Your task to perform on an android device: turn vacation reply on in the gmail app Image 0: 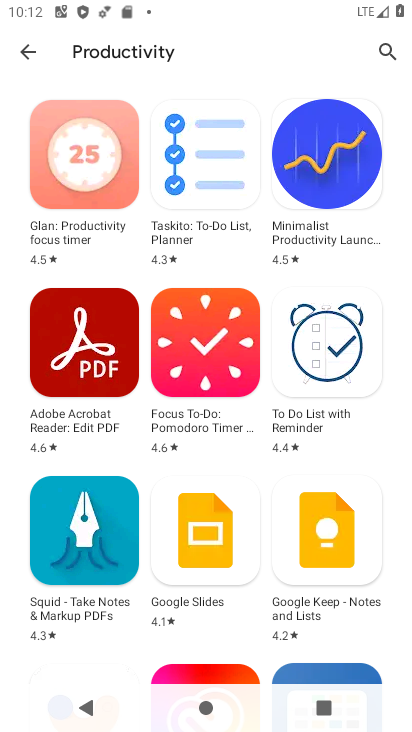
Step 0: press back button
Your task to perform on an android device: turn vacation reply on in the gmail app Image 1: 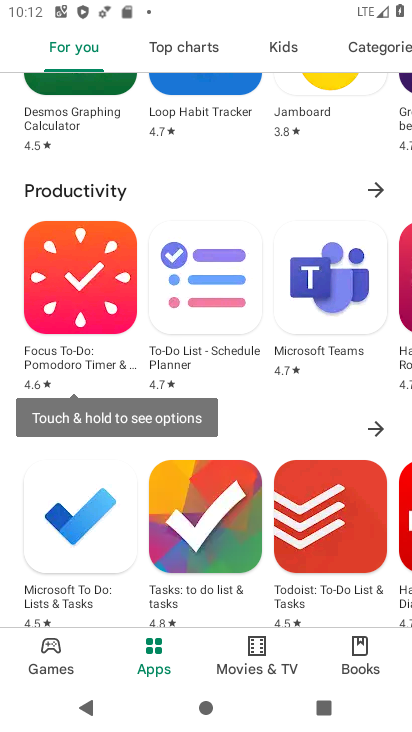
Step 1: press back button
Your task to perform on an android device: turn vacation reply on in the gmail app Image 2: 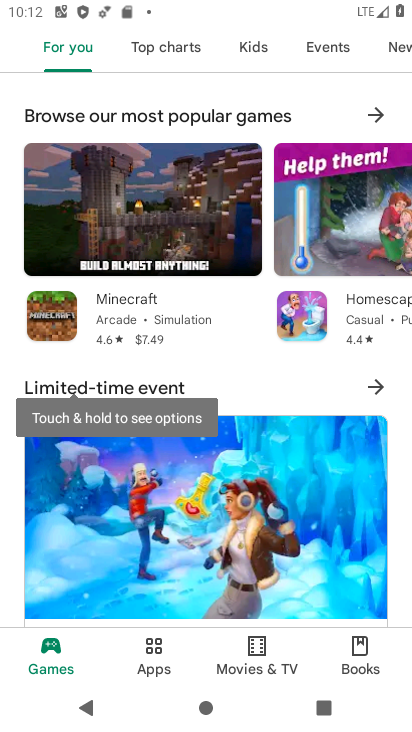
Step 2: press back button
Your task to perform on an android device: turn vacation reply on in the gmail app Image 3: 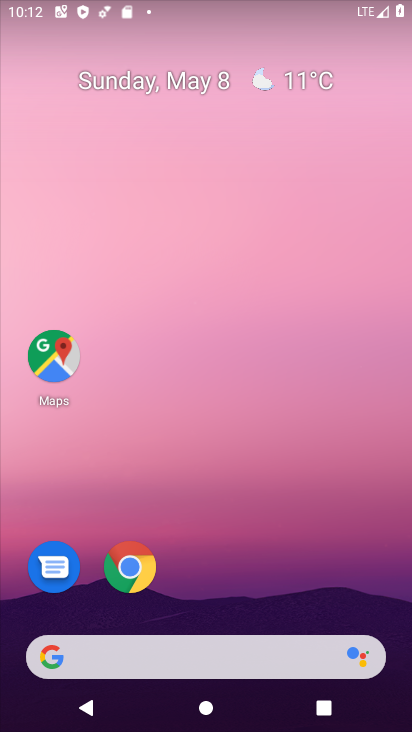
Step 3: drag from (237, 584) to (344, 63)
Your task to perform on an android device: turn vacation reply on in the gmail app Image 4: 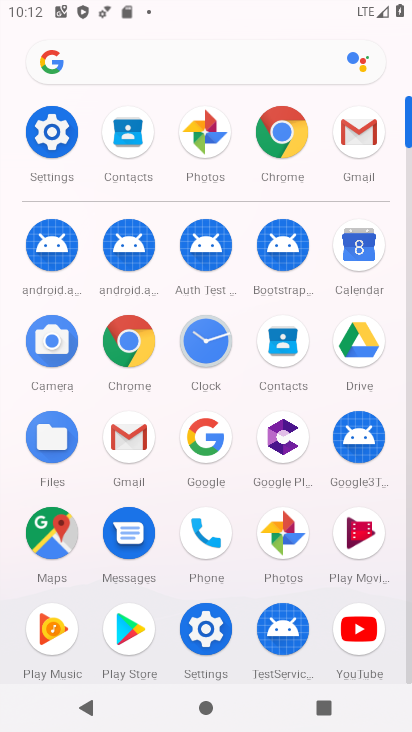
Step 4: click (356, 127)
Your task to perform on an android device: turn vacation reply on in the gmail app Image 5: 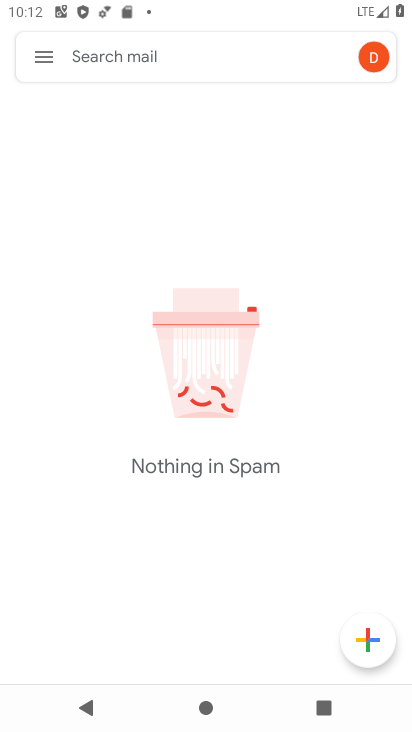
Step 5: click (48, 52)
Your task to perform on an android device: turn vacation reply on in the gmail app Image 6: 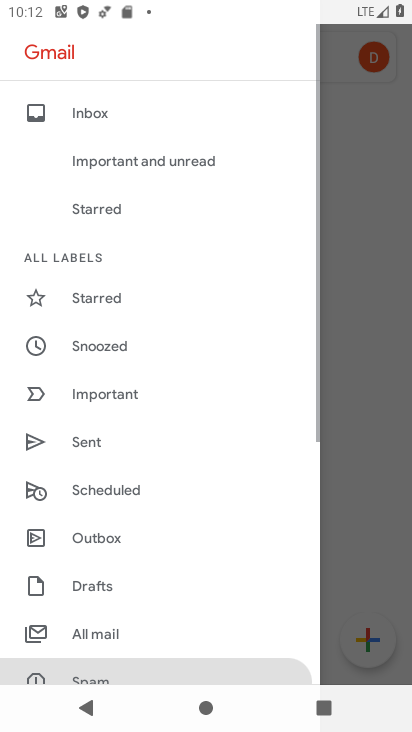
Step 6: drag from (169, 602) to (279, 72)
Your task to perform on an android device: turn vacation reply on in the gmail app Image 7: 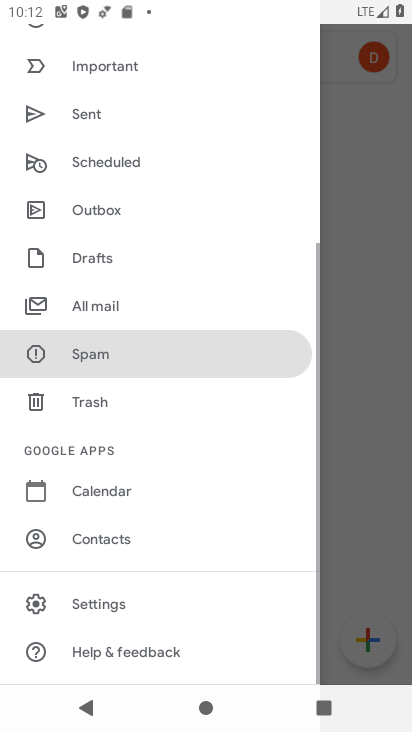
Step 7: click (128, 601)
Your task to perform on an android device: turn vacation reply on in the gmail app Image 8: 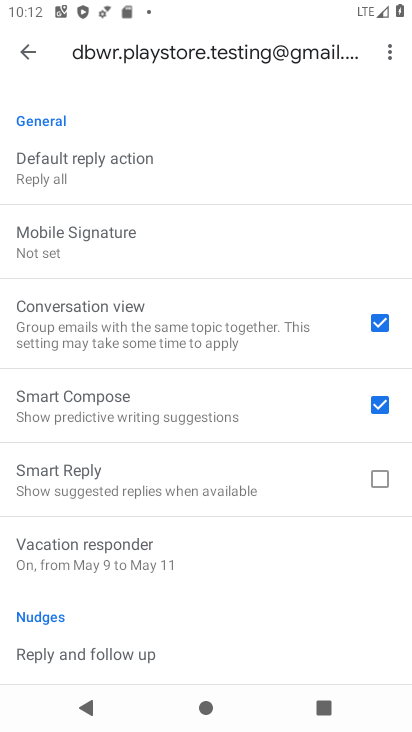
Step 8: click (111, 561)
Your task to perform on an android device: turn vacation reply on in the gmail app Image 9: 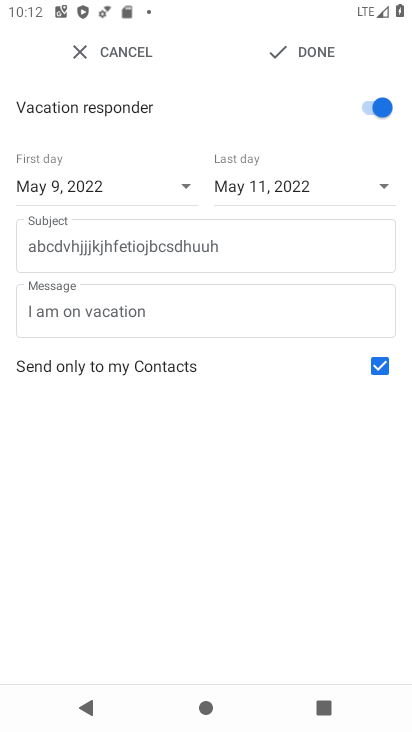
Step 9: task complete